Your task to perform on an android device: toggle airplane mode Image 0: 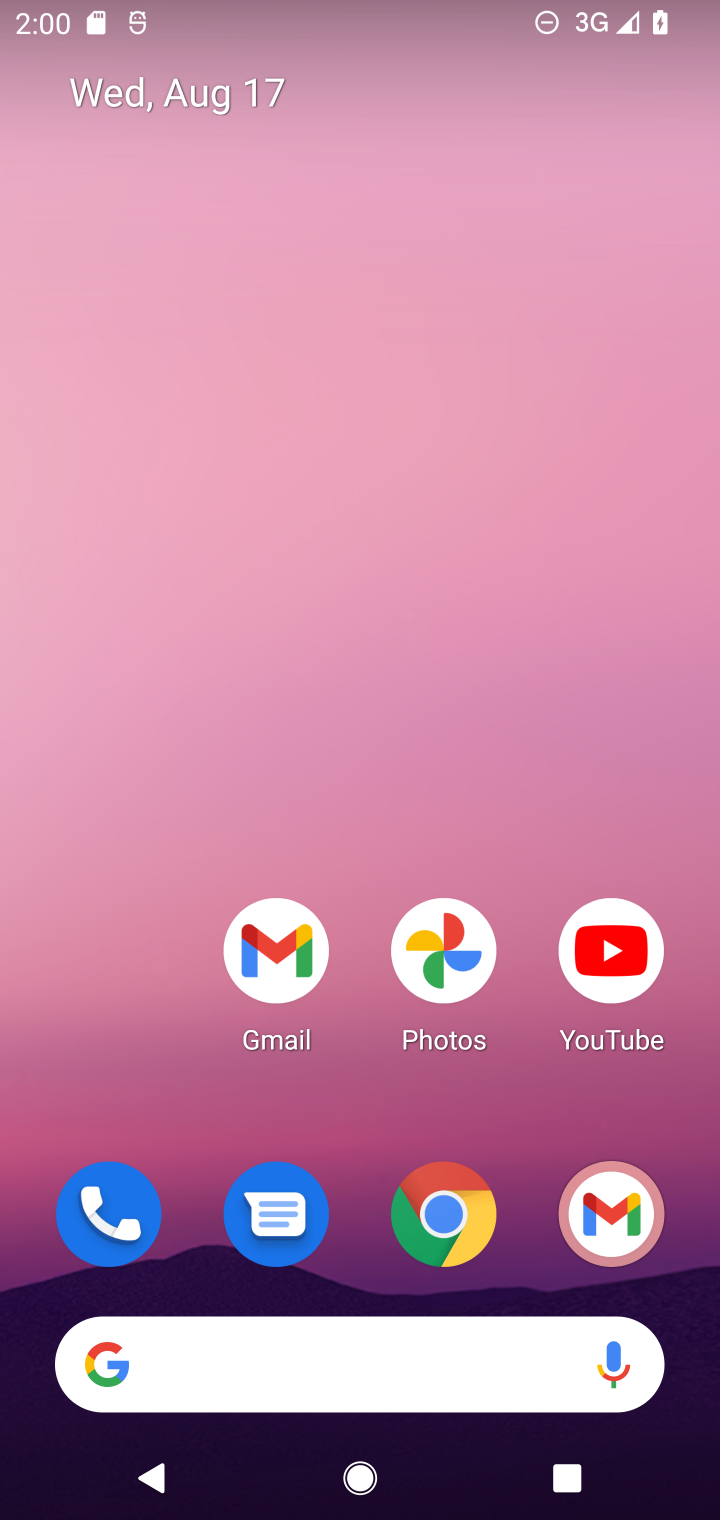
Step 0: drag from (354, 1156) to (345, 249)
Your task to perform on an android device: toggle airplane mode Image 1: 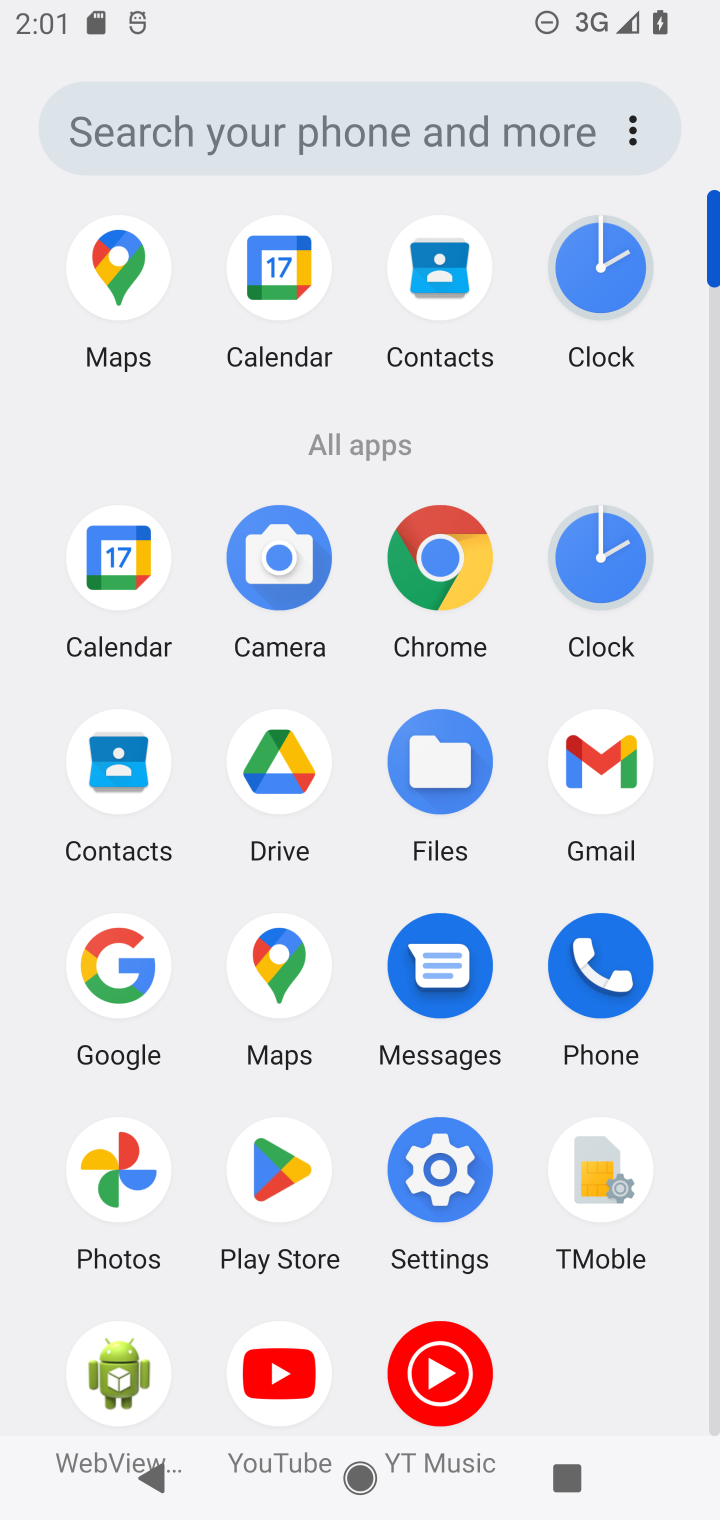
Step 1: click (436, 1172)
Your task to perform on an android device: toggle airplane mode Image 2: 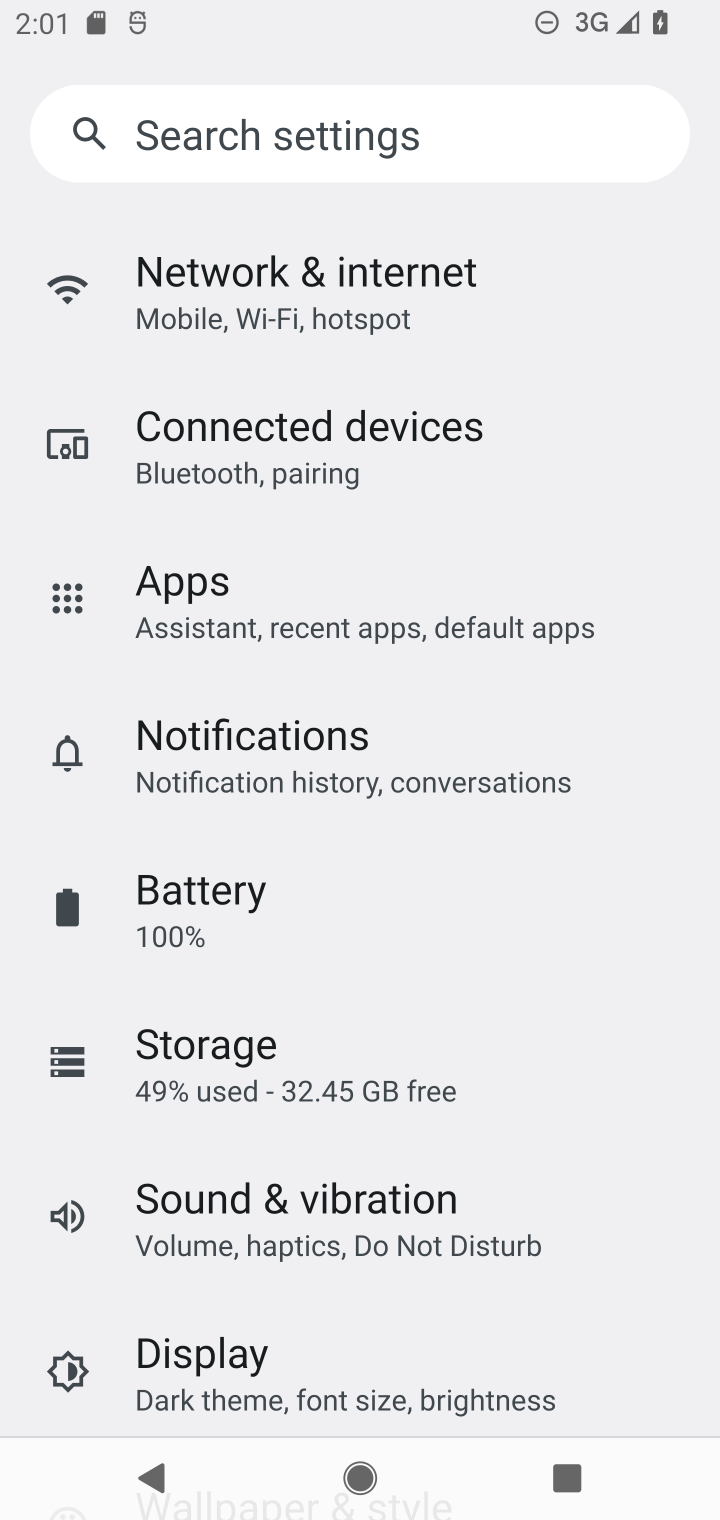
Step 2: click (302, 257)
Your task to perform on an android device: toggle airplane mode Image 3: 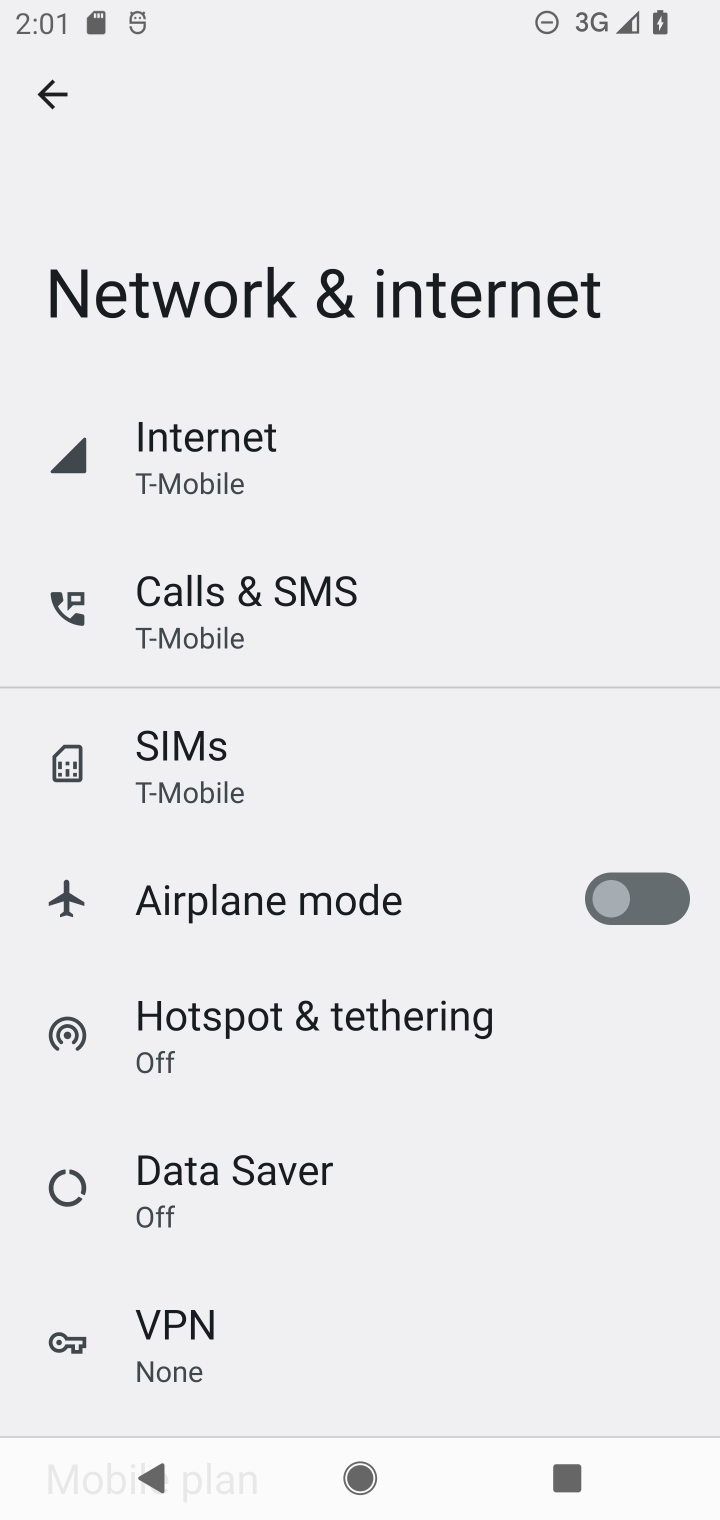
Step 3: click (617, 901)
Your task to perform on an android device: toggle airplane mode Image 4: 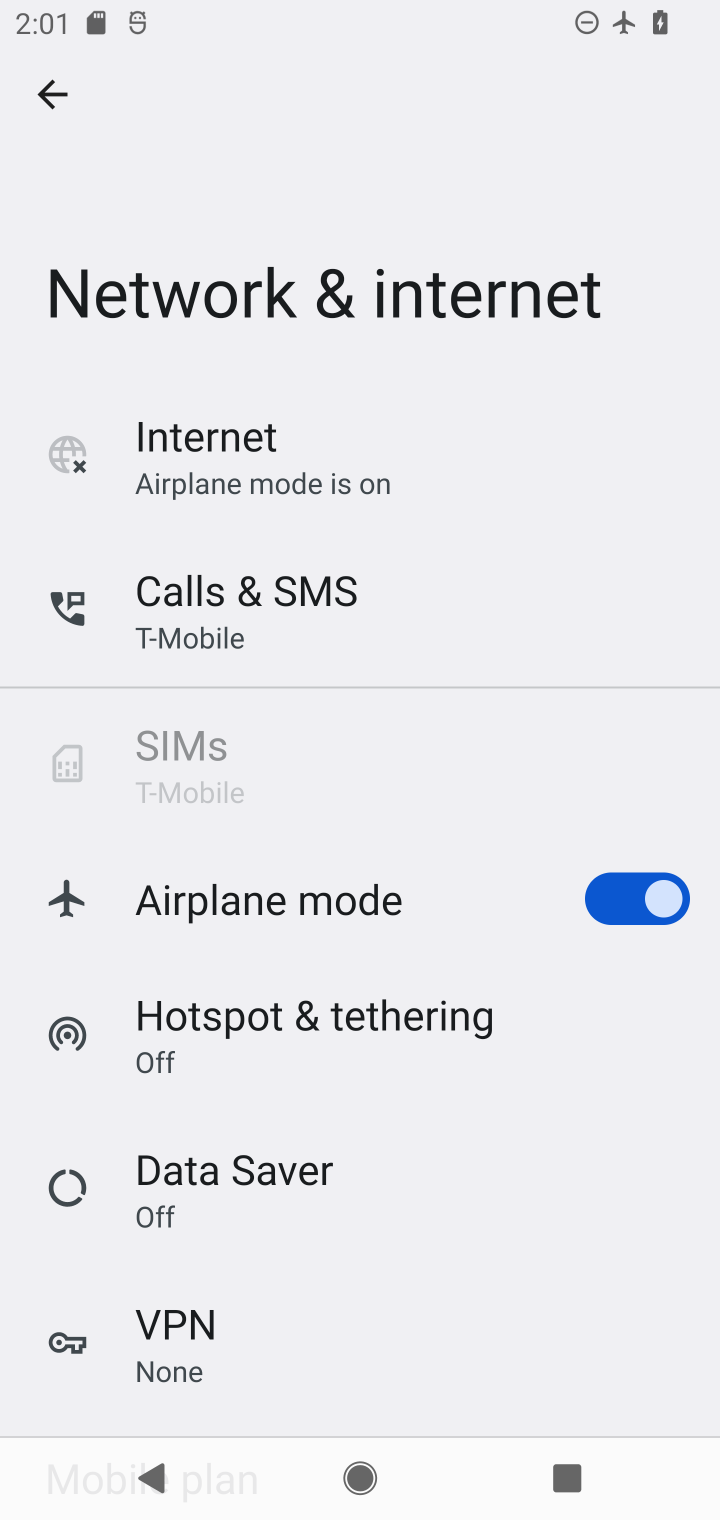
Step 4: task complete